Your task to perform on an android device: Open Google Image 0: 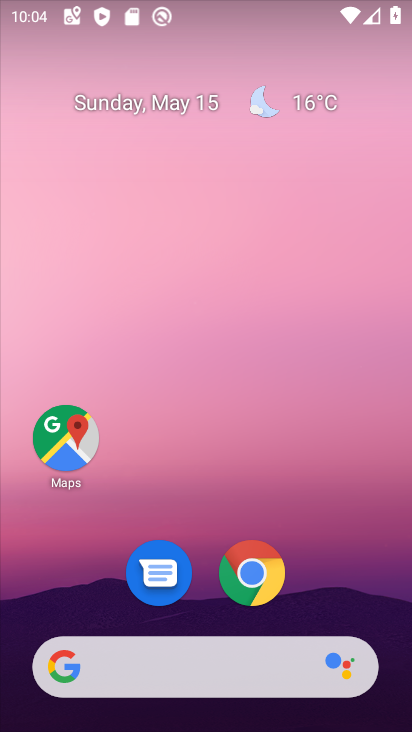
Step 0: drag from (363, 576) to (314, 80)
Your task to perform on an android device: Open Google Image 1: 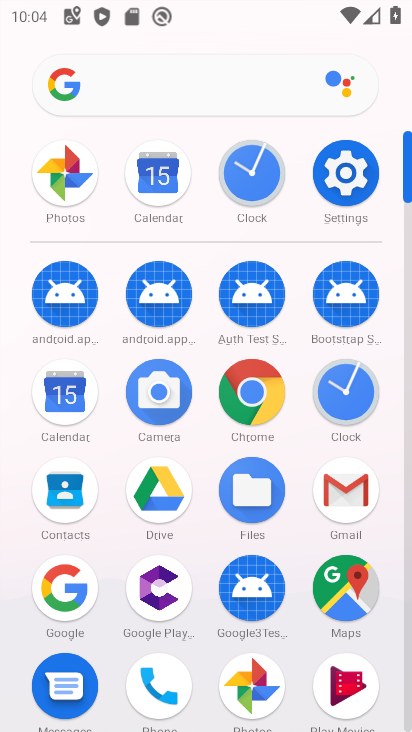
Step 1: click (76, 598)
Your task to perform on an android device: Open Google Image 2: 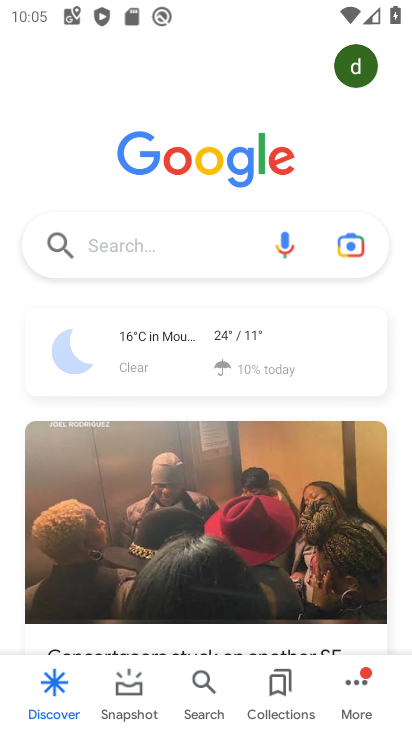
Step 2: task complete